Your task to perform on an android device: turn off smart reply in the gmail app Image 0: 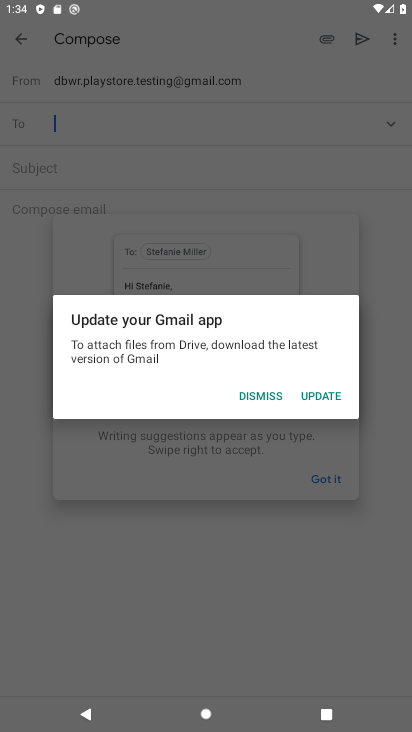
Step 0: press home button
Your task to perform on an android device: turn off smart reply in the gmail app Image 1: 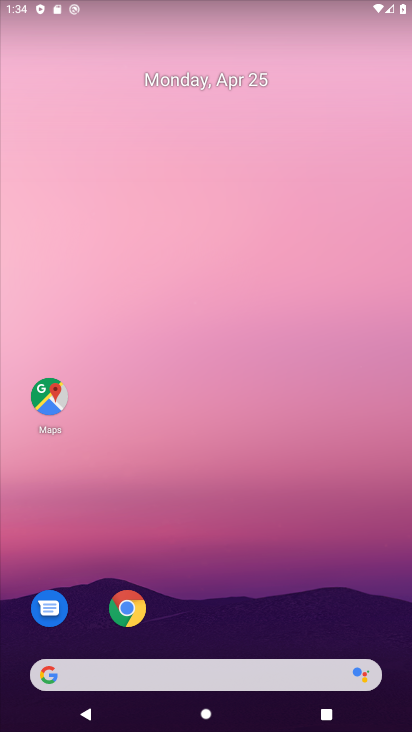
Step 1: drag from (376, 620) to (359, 165)
Your task to perform on an android device: turn off smart reply in the gmail app Image 2: 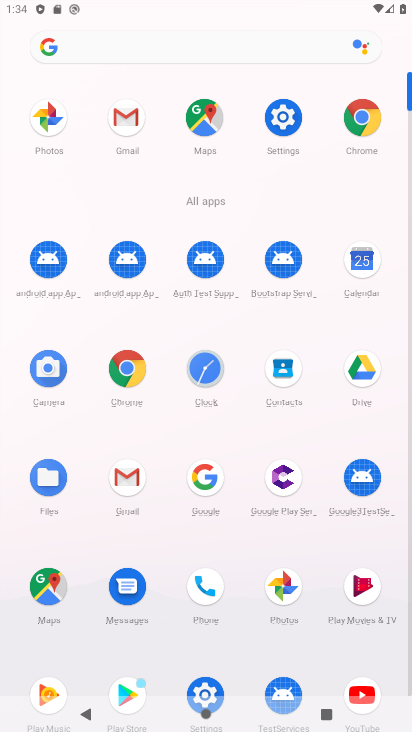
Step 2: click (119, 481)
Your task to perform on an android device: turn off smart reply in the gmail app Image 3: 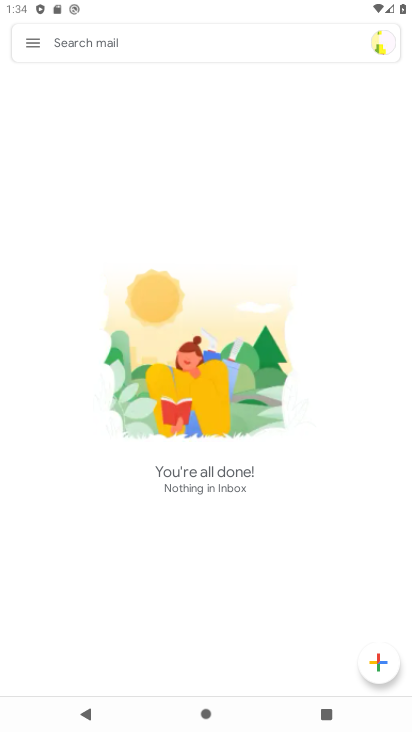
Step 3: click (29, 39)
Your task to perform on an android device: turn off smart reply in the gmail app Image 4: 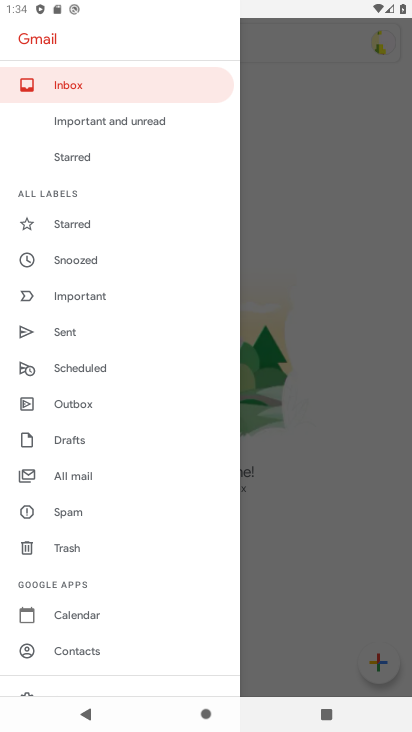
Step 4: drag from (157, 532) to (158, 364)
Your task to perform on an android device: turn off smart reply in the gmail app Image 5: 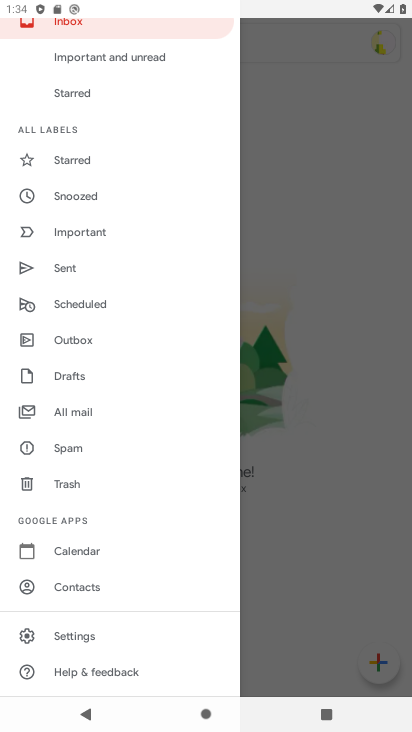
Step 5: drag from (156, 622) to (173, 407)
Your task to perform on an android device: turn off smart reply in the gmail app Image 6: 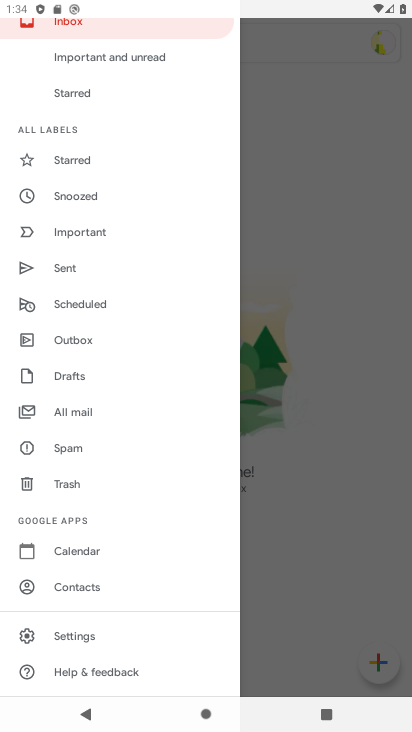
Step 6: click (96, 645)
Your task to perform on an android device: turn off smart reply in the gmail app Image 7: 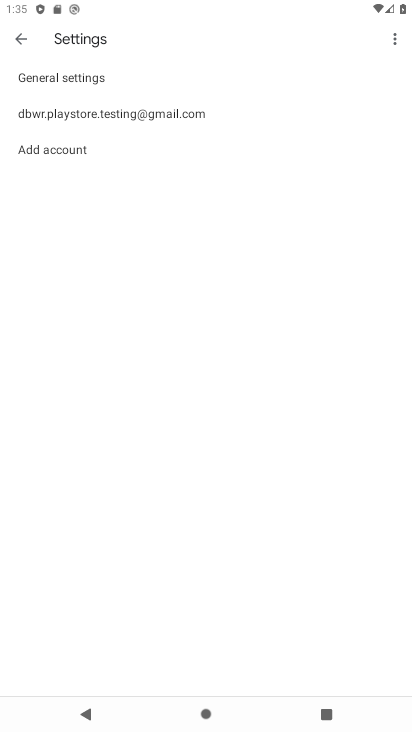
Step 7: click (173, 118)
Your task to perform on an android device: turn off smart reply in the gmail app Image 8: 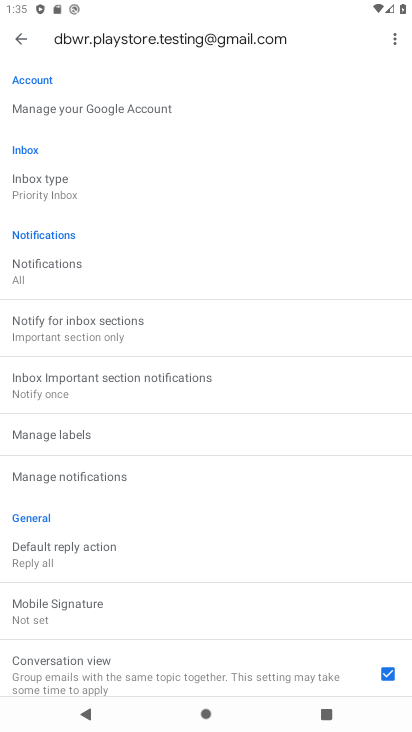
Step 8: drag from (284, 526) to (294, 382)
Your task to perform on an android device: turn off smart reply in the gmail app Image 9: 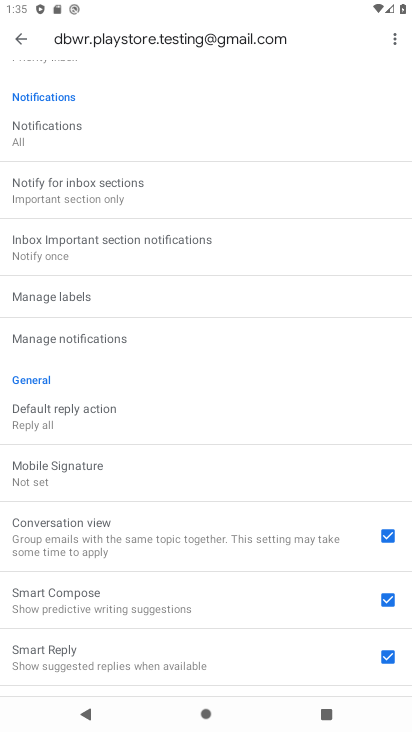
Step 9: drag from (269, 521) to (271, 399)
Your task to perform on an android device: turn off smart reply in the gmail app Image 10: 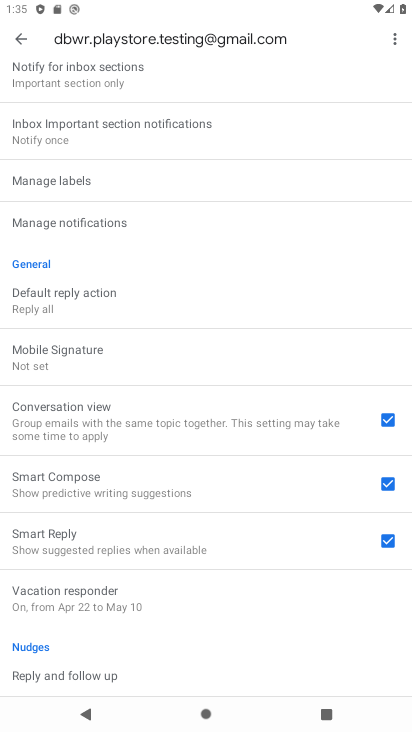
Step 10: drag from (254, 511) to (249, 437)
Your task to perform on an android device: turn off smart reply in the gmail app Image 11: 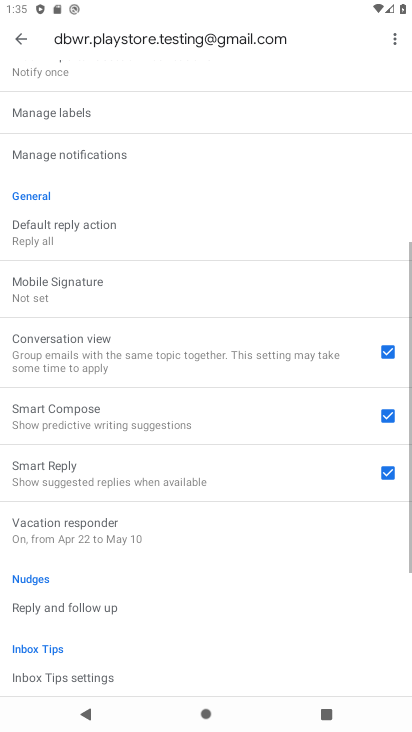
Step 11: drag from (246, 591) to (243, 453)
Your task to perform on an android device: turn off smart reply in the gmail app Image 12: 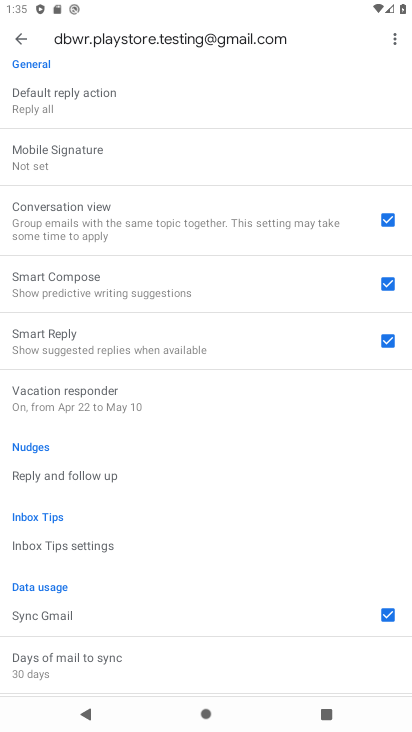
Step 12: drag from (250, 603) to (280, 410)
Your task to perform on an android device: turn off smart reply in the gmail app Image 13: 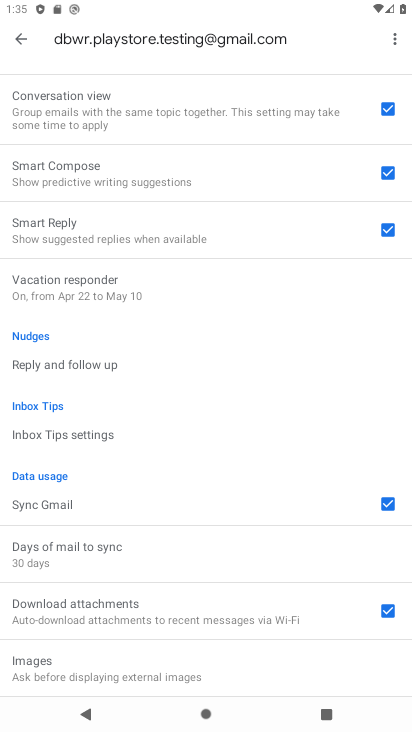
Step 13: click (392, 225)
Your task to perform on an android device: turn off smart reply in the gmail app Image 14: 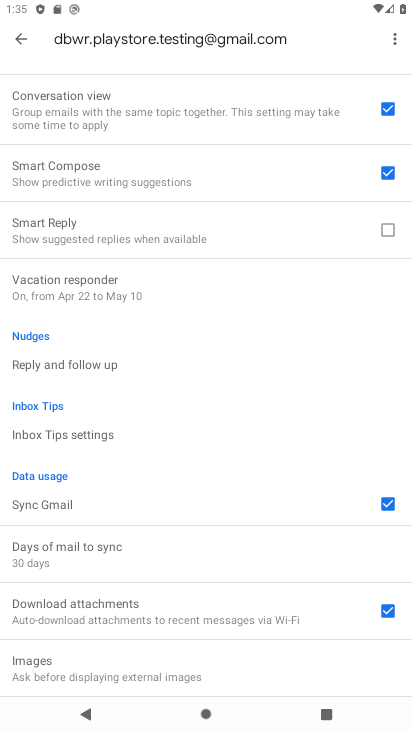
Step 14: task complete